Your task to perform on an android device: turn off improve location accuracy Image 0: 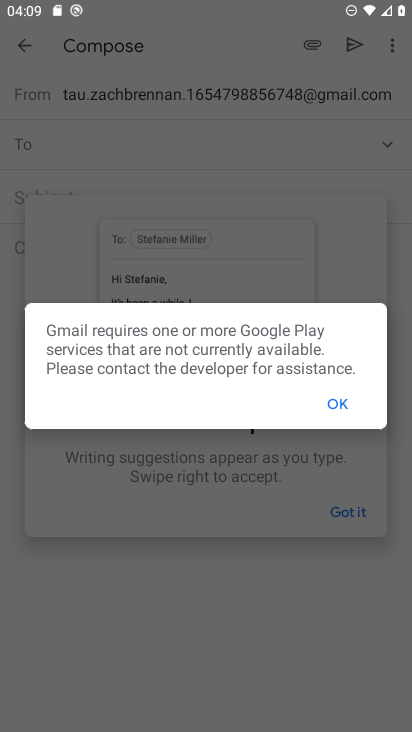
Step 0: press home button
Your task to perform on an android device: turn off improve location accuracy Image 1: 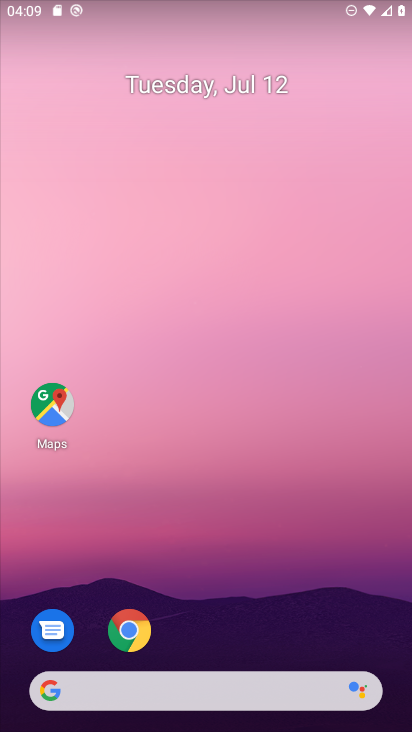
Step 1: drag from (358, 644) to (327, 151)
Your task to perform on an android device: turn off improve location accuracy Image 2: 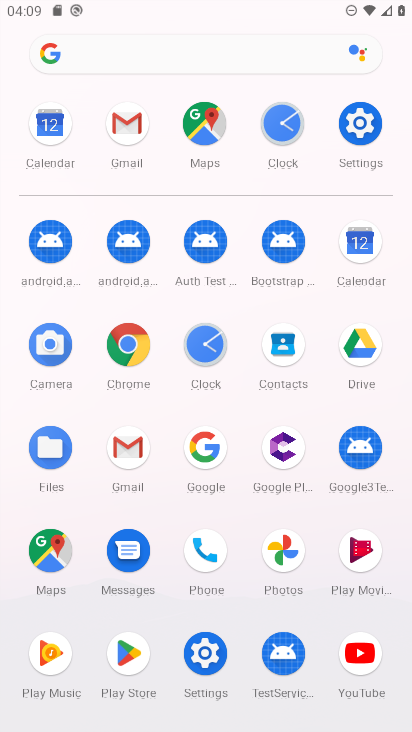
Step 2: click (206, 656)
Your task to perform on an android device: turn off improve location accuracy Image 3: 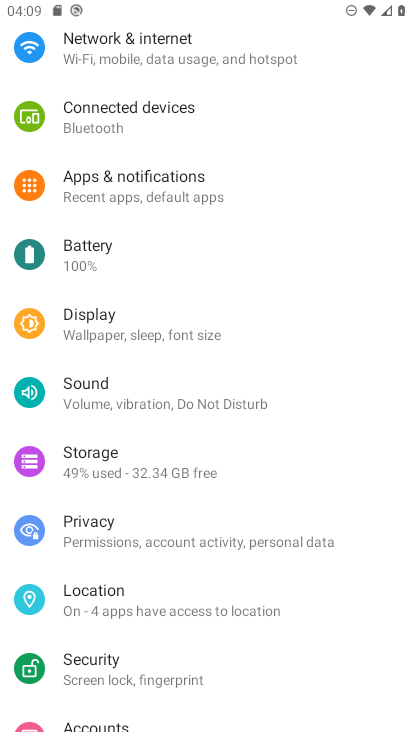
Step 3: click (93, 605)
Your task to perform on an android device: turn off improve location accuracy Image 4: 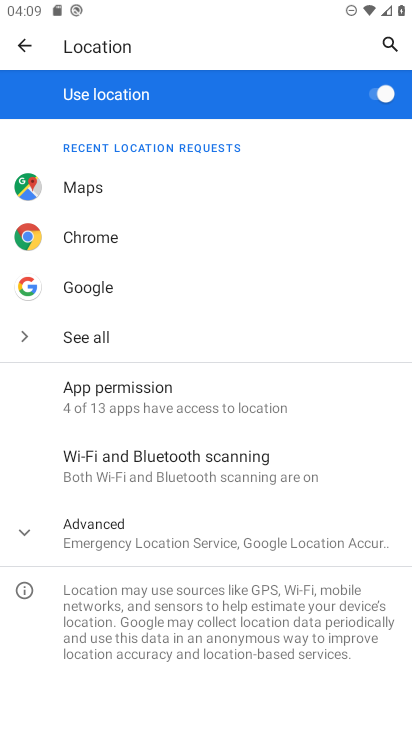
Step 4: click (11, 527)
Your task to perform on an android device: turn off improve location accuracy Image 5: 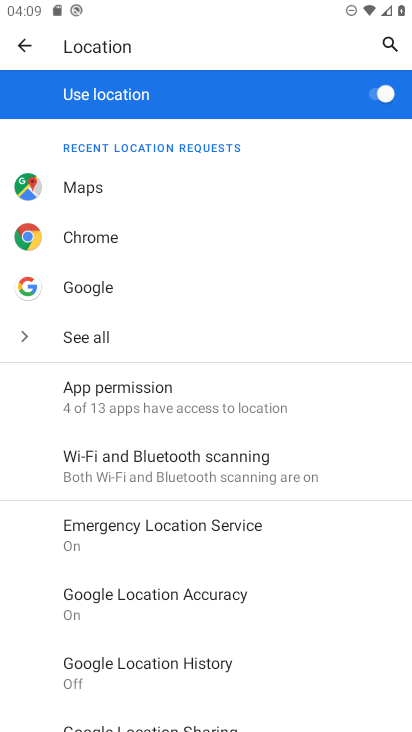
Step 5: click (124, 603)
Your task to perform on an android device: turn off improve location accuracy Image 6: 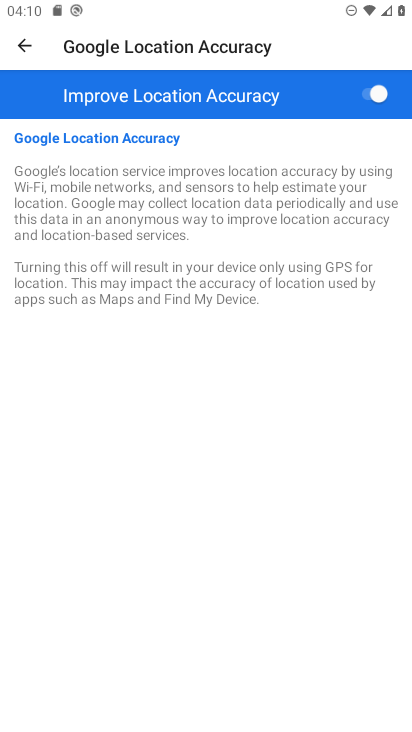
Step 6: click (362, 90)
Your task to perform on an android device: turn off improve location accuracy Image 7: 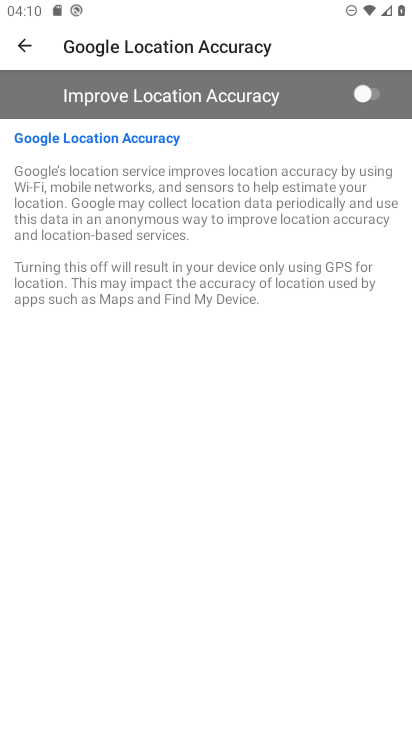
Step 7: task complete